Your task to perform on an android device: What is the recent news? Image 0: 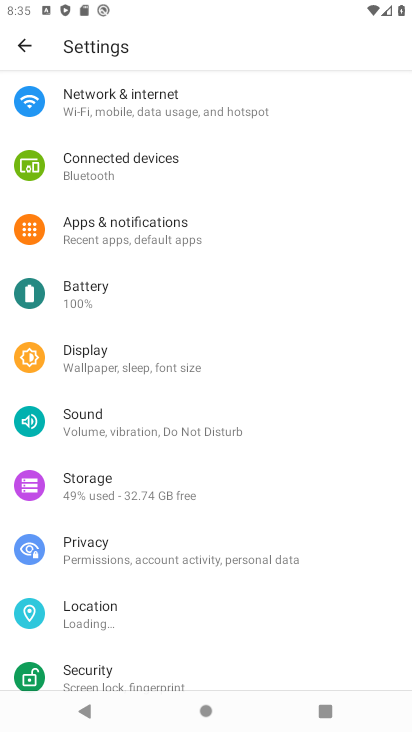
Step 0: press home button
Your task to perform on an android device: What is the recent news? Image 1: 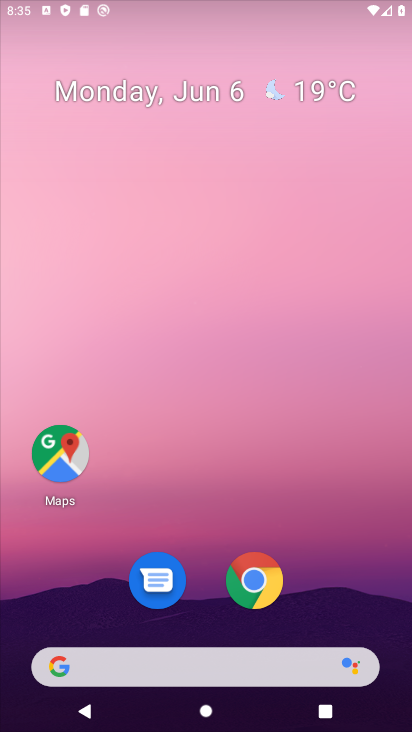
Step 1: drag from (291, 663) to (347, 83)
Your task to perform on an android device: What is the recent news? Image 2: 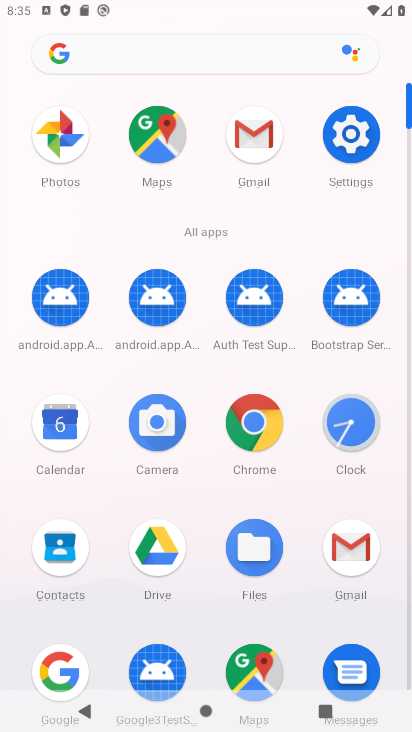
Step 2: click (247, 421)
Your task to perform on an android device: What is the recent news? Image 3: 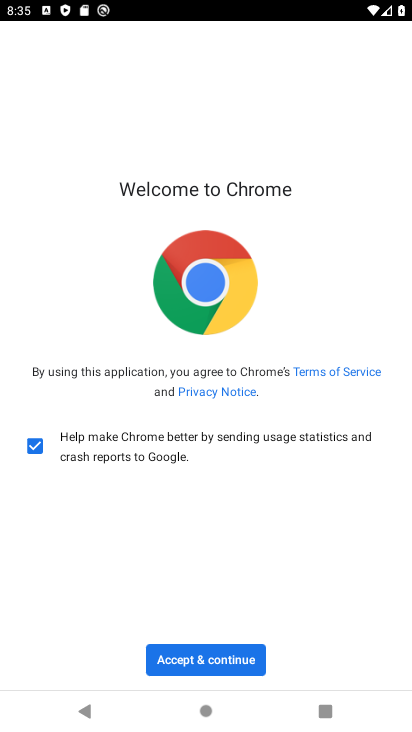
Step 3: click (245, 658)
Your task to perform on an android device: What is the recent news? Image 4: 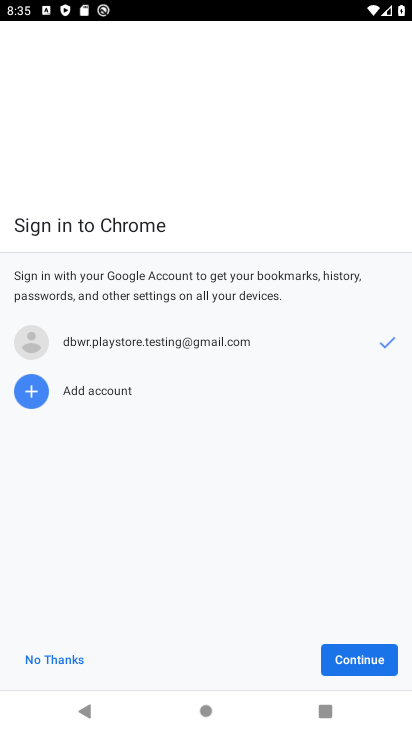
Step 4: click (64, 659)
Your task to perform on an android device: What is the recent news? Image 5: 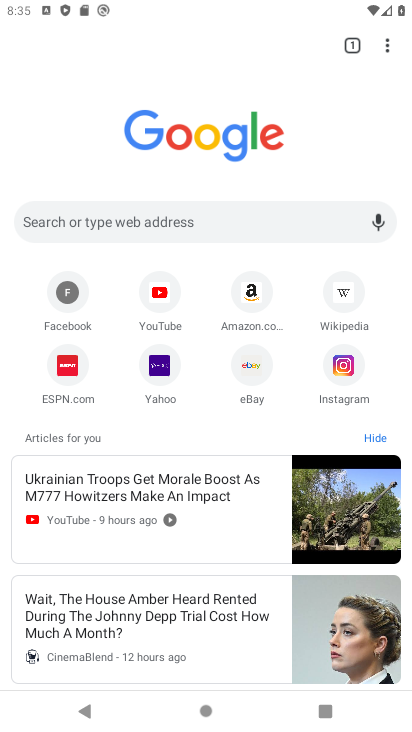
Step 5: click (225, 219)
Your task to perform on an android device: What is the recent news? Image 6: 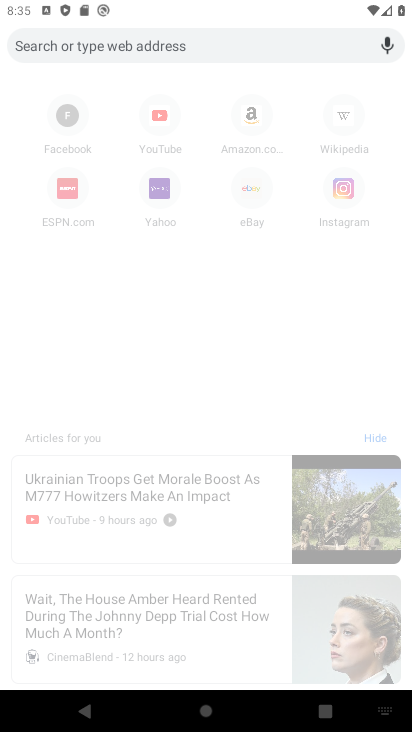
Step 6: type "recent news"
Your task to perform on an android device: What is the recent news? Image 7: 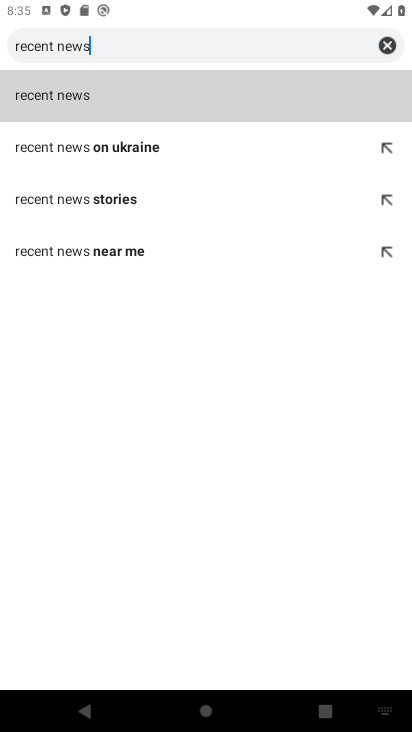
Step 7: click (71, 93)
Your task to perform on an android device: What is the recent news? Image 8: 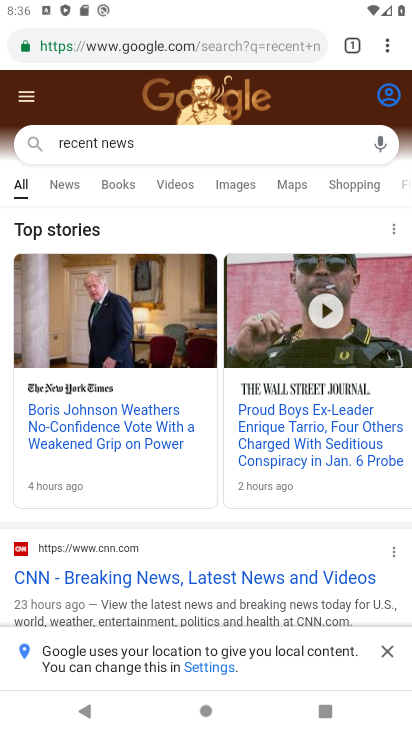
Step 8: task complete